Your task to perform on an android device: allow cookies in the chrome app Image 0: 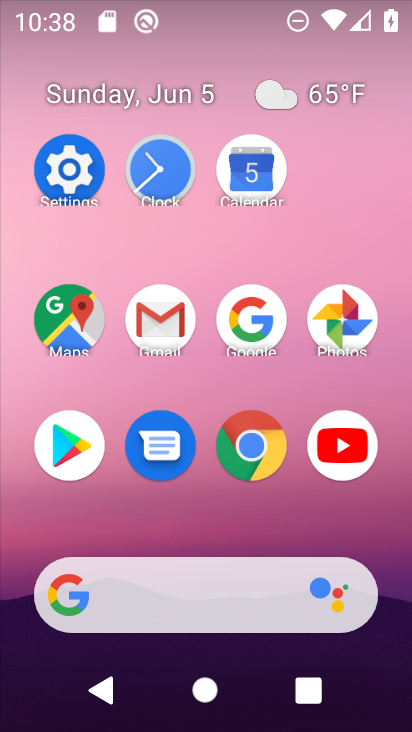
Step 0: click (239, 465)
Your task to perform on an android device: allow cookies in the chrome app Image 1: 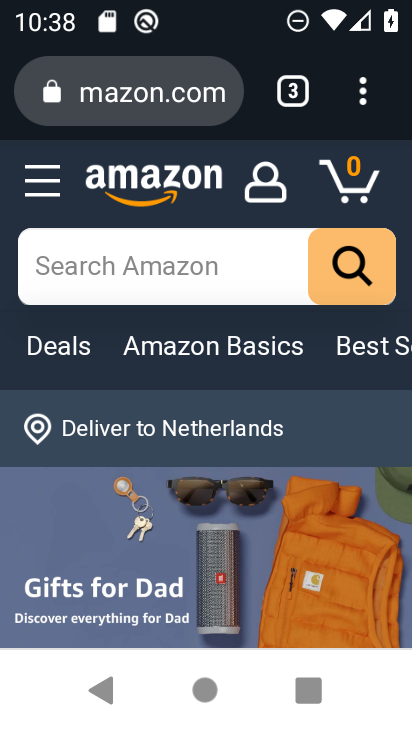
Step 1: click (381, 90)
Your task to perform on an android device: allow cookies in the chrome app Image 2: 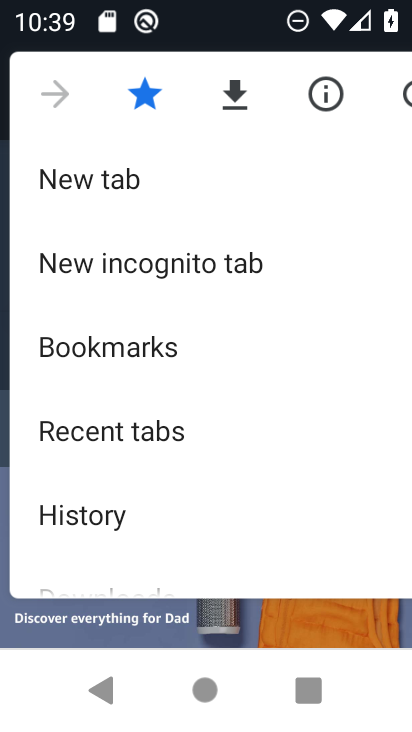
Step 2: drag from (242, 478) to (272, 182)
Your task to perform on an android device: allow cookies in the chrome app Image 3: 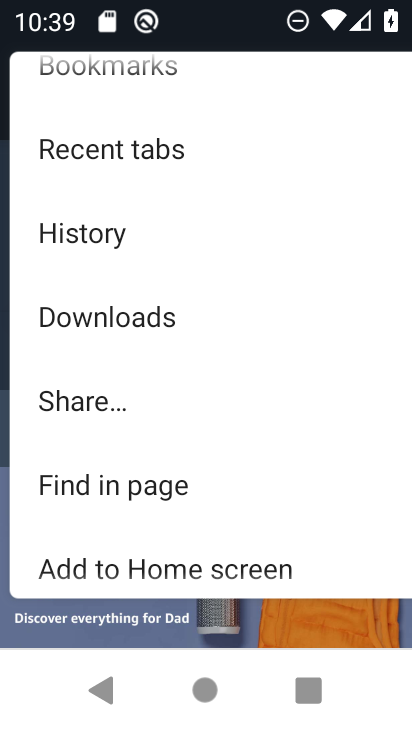
Step 3: drag from (170, 501) to (212, 171)
Your task to perform on an android device: allow cookies in the chrome app Image 4: 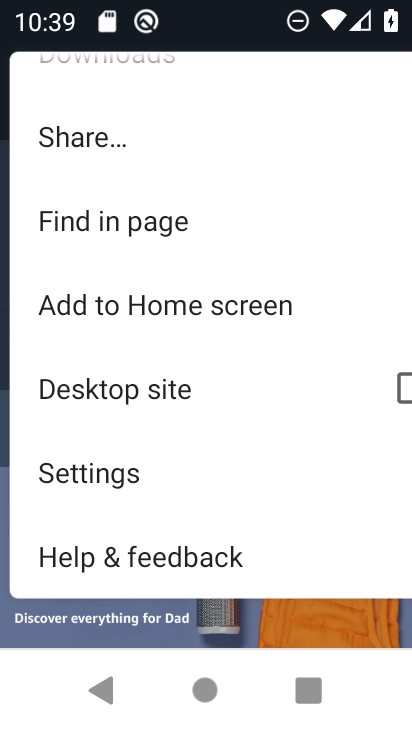
Step 4: click (138, 495)
Your task to perform on an android device: allow cookies in the chrome app Image 5: 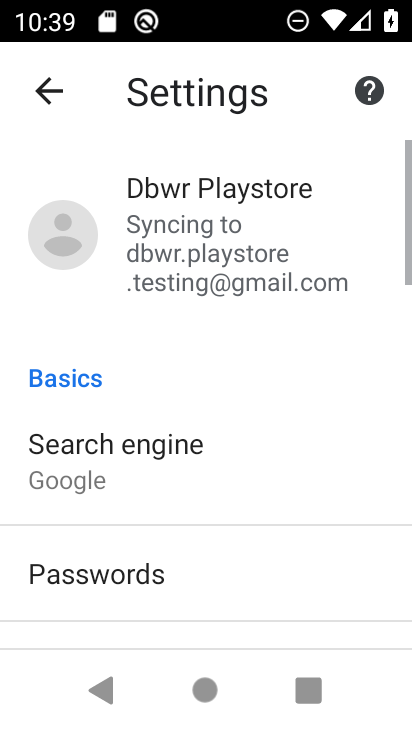
Step 5: drag from (138, 495) to (159, 248)
Your task to perform on an android device: allow cookies in the chrome app Image 6: 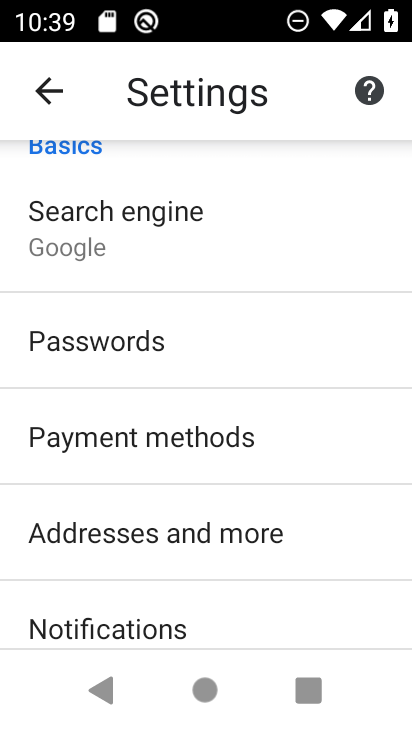
Step 6: drag from (195, 513) to (225, 212)
Your task to perform on an android device: allow cookies in the chrome app Image 7: 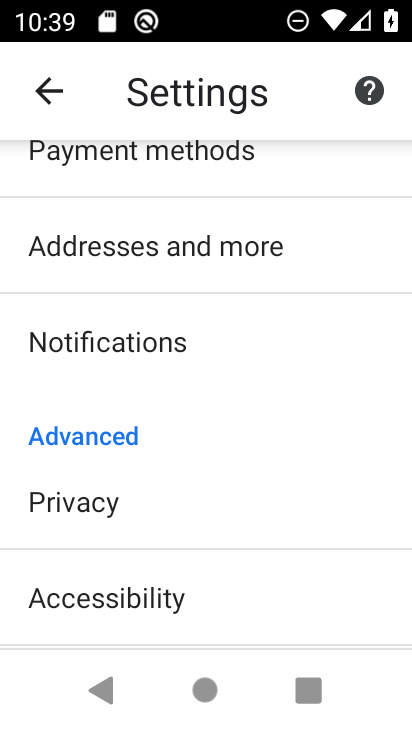
Step 7: drag from (205, 512) to (238, 273)
Your task to perform on an android device: allow cookies in the chrome app Image 8: 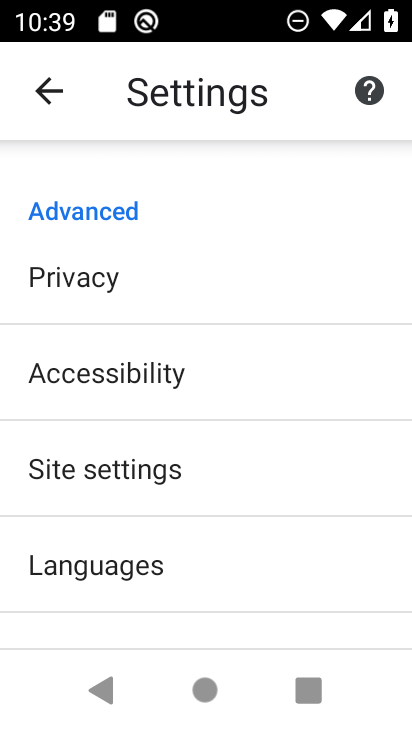
Step 8: click (205, 481)
Your task to perform on an android device: allow cookies in the chrome app Image 9: 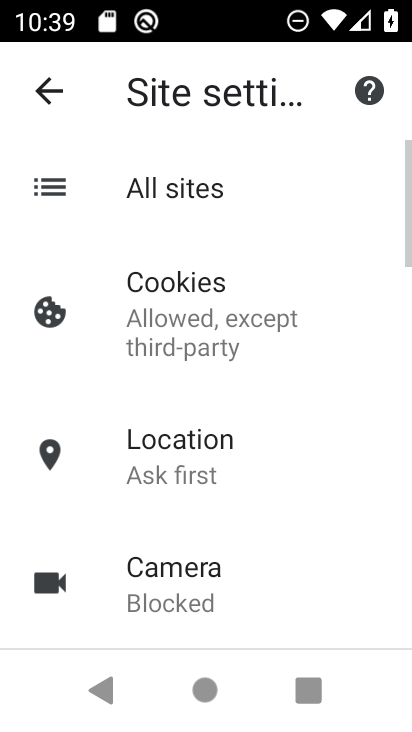
Step 9: click (245, 292)
Your task to perform on an android device: allow cookies in the chrome app Image 10: 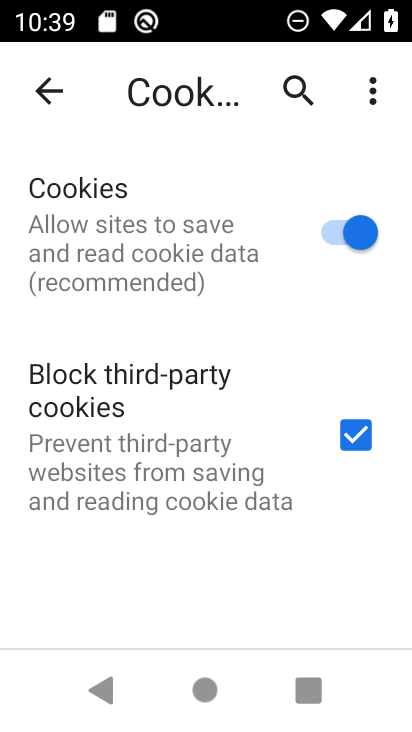
Step 10: task complete